Your task to perform on an android device: Open a new Chrome window Image 0: 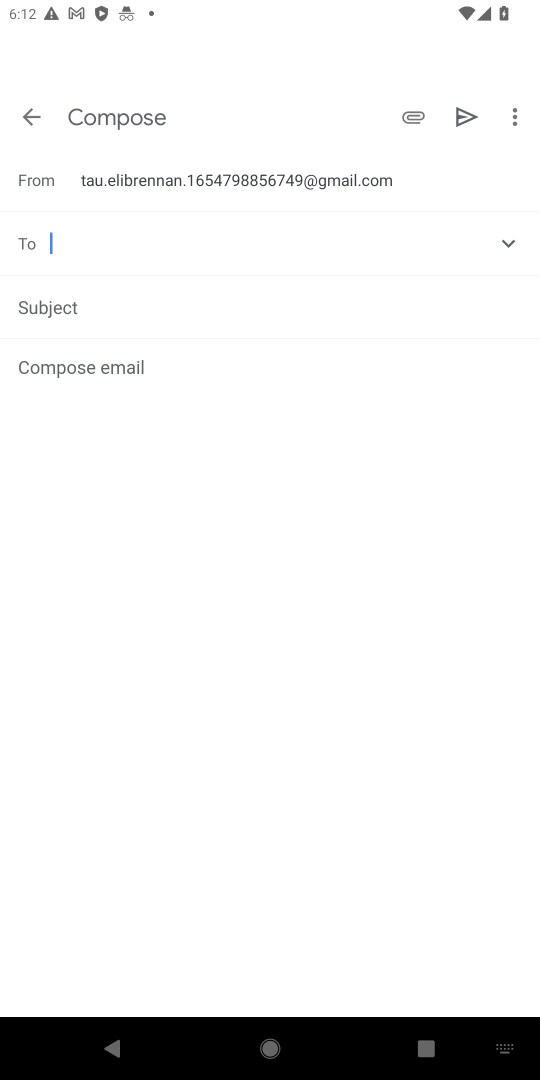
Step 0: press home button
Your task to perform on an android device: Open a new Chrome window Image 1: 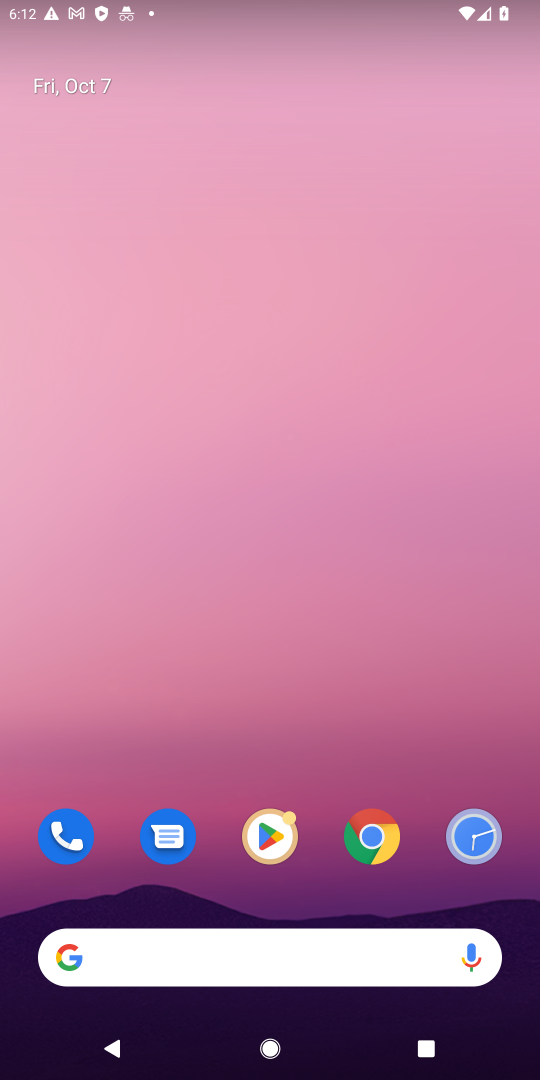
Step 1: click (365, 826)
Your task to perform on an android device: Open a new Chrome window Image 2: 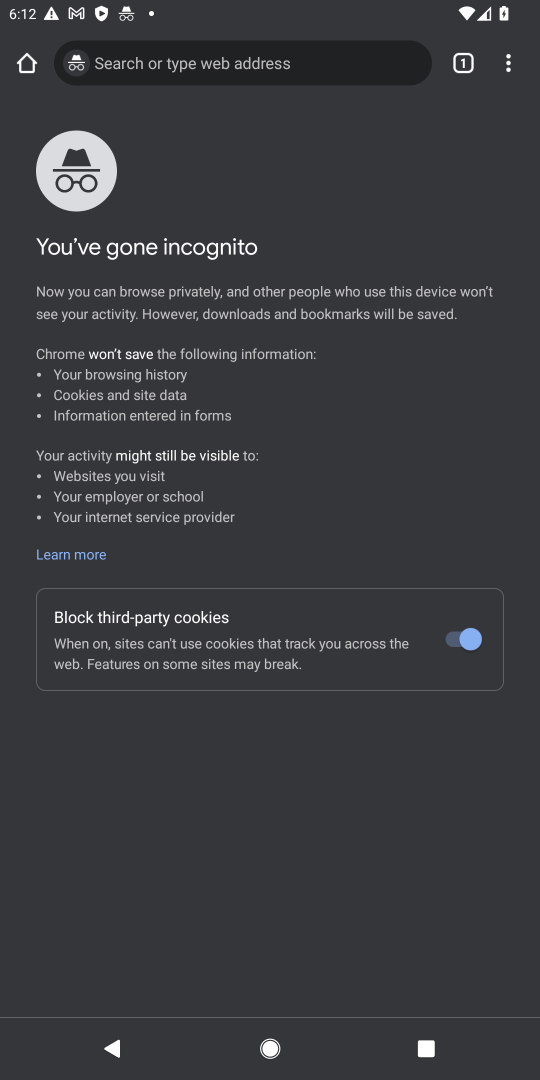
Step 2: task complete